Your task to perform on an android device: all mails in gmail Image 0: 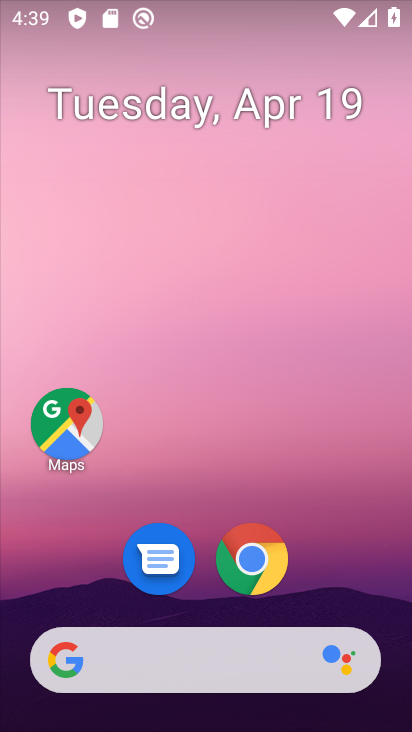
Step 0: drag from (346, 585) to (367, 75)
Your task to perform on an android device: all mails in gmail Image 1: 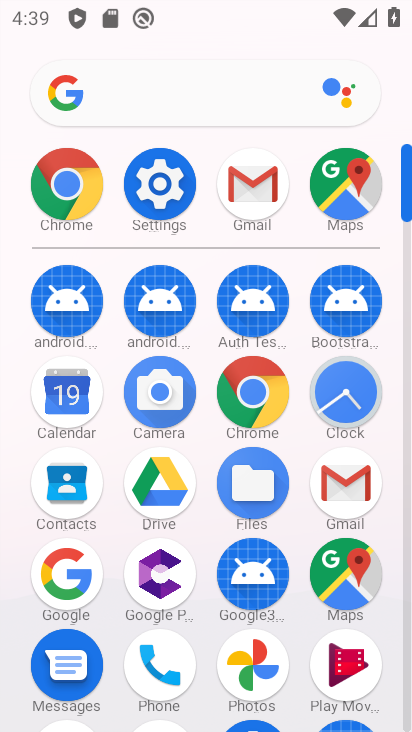
Step 1: click (240, 213)
Your task to perform on an android device: all mails in gmail Image 2: 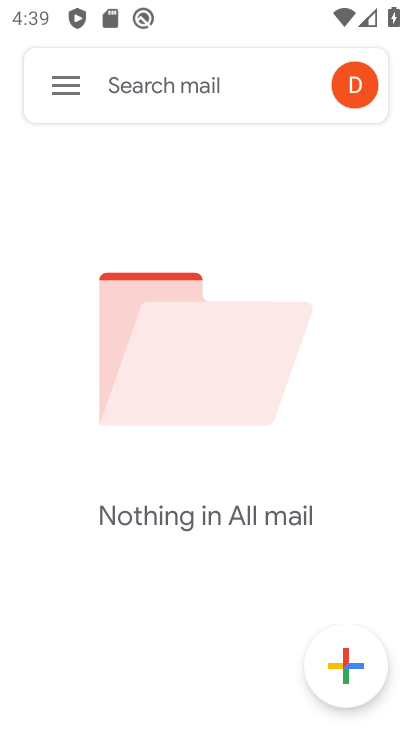
Step 2: click (45, 95)
Your task to perform on an android device: all mails in gmail Image 3: 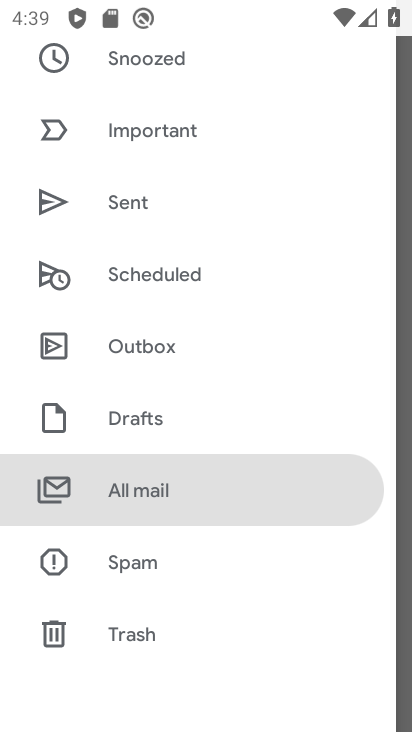
Step 3: task complete